Your task to perform on an android device: Open wifi settings Image 0: 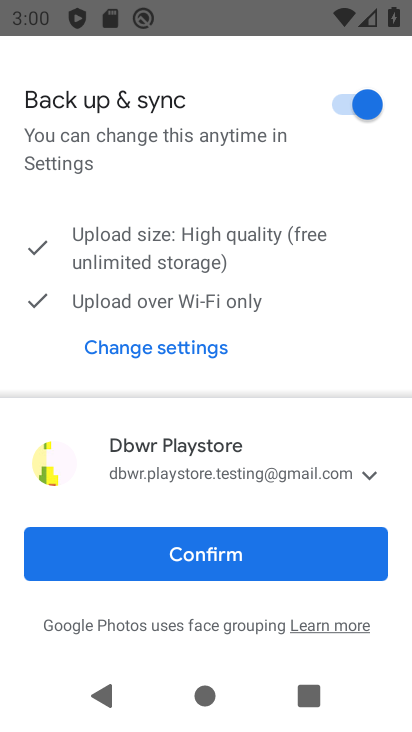
Step 0: press home button
Your task to perform on an android device: Open wifi settings Image 1: 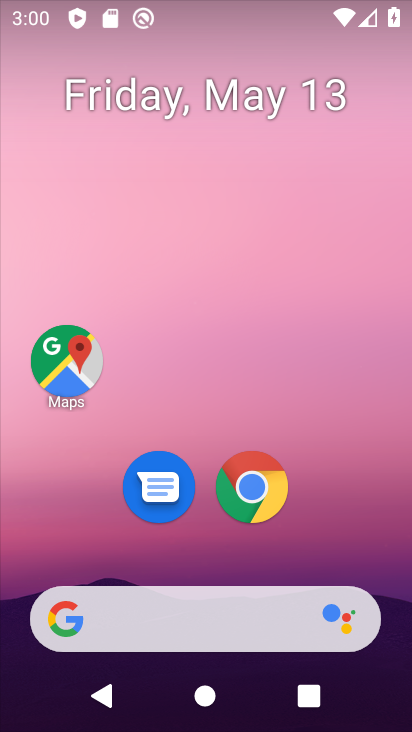
Step 1: drag from (366, 513) to (343, 152)
Your task to perform on an android device: Open wifi settings Image 2: 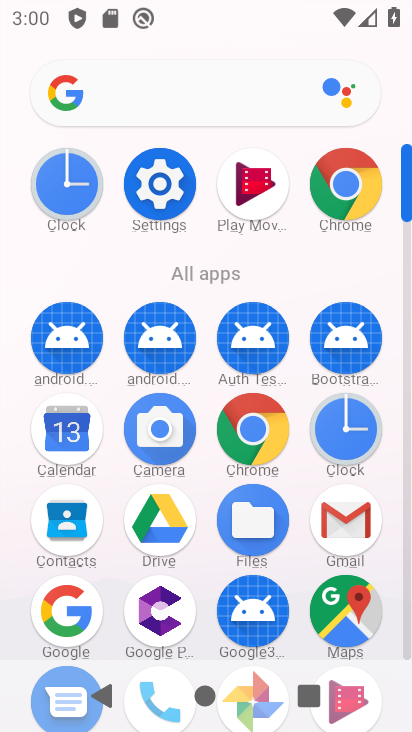
Step 2: click (178, 193)
Your task to perform on an android device: Open wifi settings Image 3: 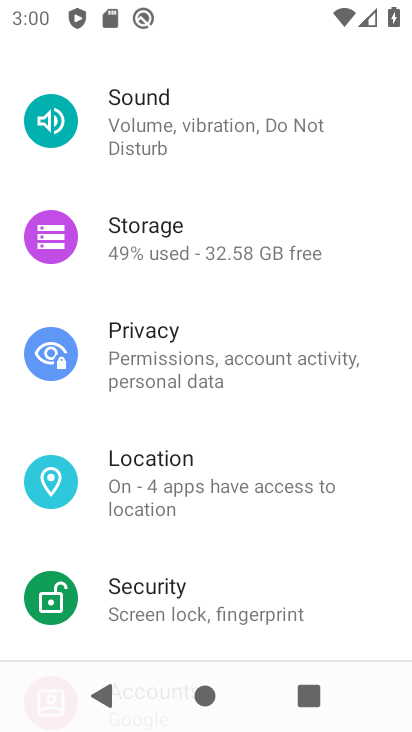
Step 3: drag from (199, 244) to (227, 589)
Your task to perform on an android device: Open wifi settings Image 4: 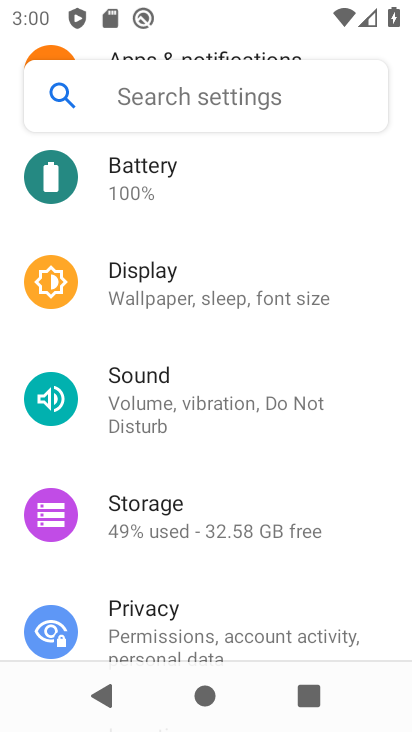
Step 4: drag from (224, 223) to (198, 542)
Your task to perform on an android device: Open wifi settings Image 5: 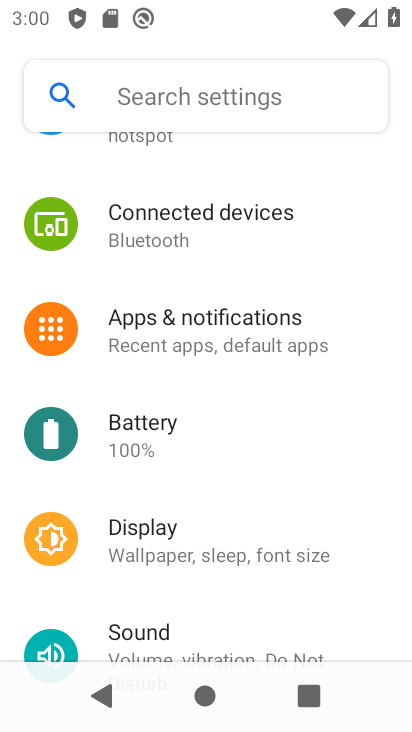
Step 5: drag from (276, 228) to (248, 594)
Your task to perform on an android device: Open wifi settings Image 6: 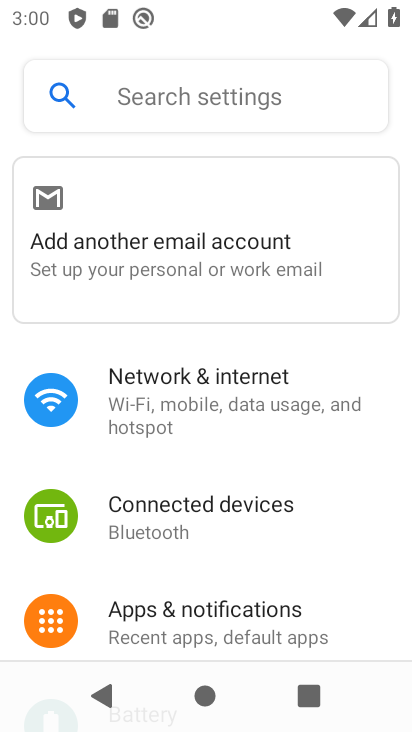
Step 6: click (191, 381)
Your task to perform on an android device: Open wifi settings Image 7: 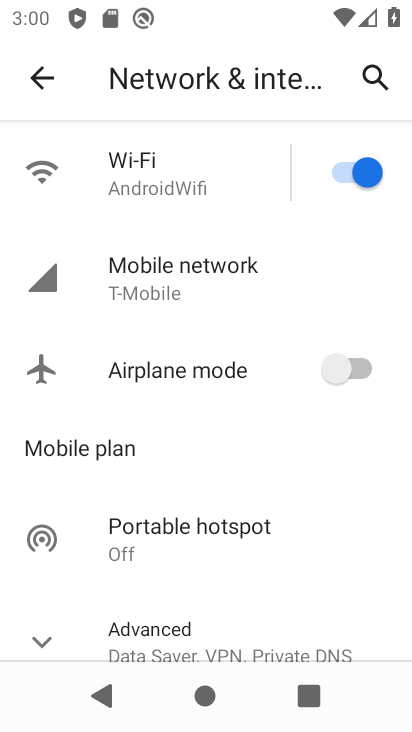
Step 7: click (148, 187)
Your task to perform on an android device: Open wifi settings Image 8: 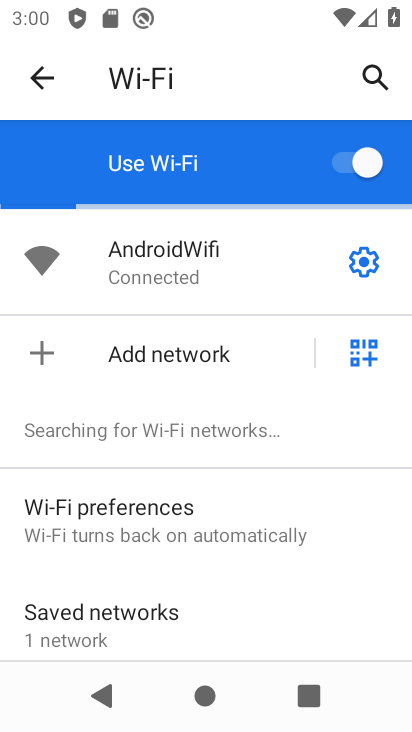
Step 8: task complete